Your task to perform on an android device: toggle sleep mode Image 0: 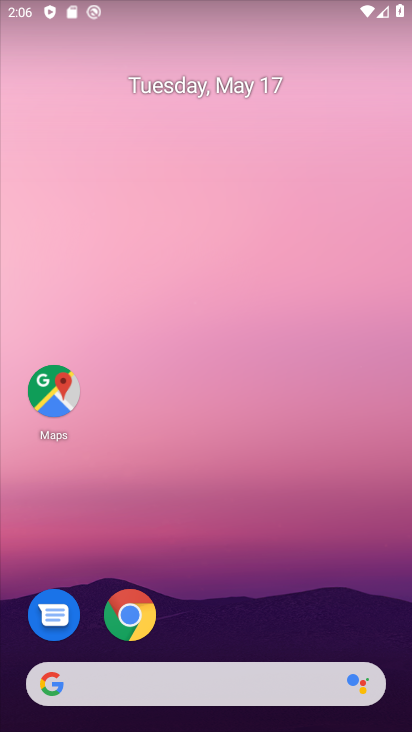
Step 0: drag from (215, 622) to (315, 0)
Your task to perform on an android device: toggle sleep mode Image 1: 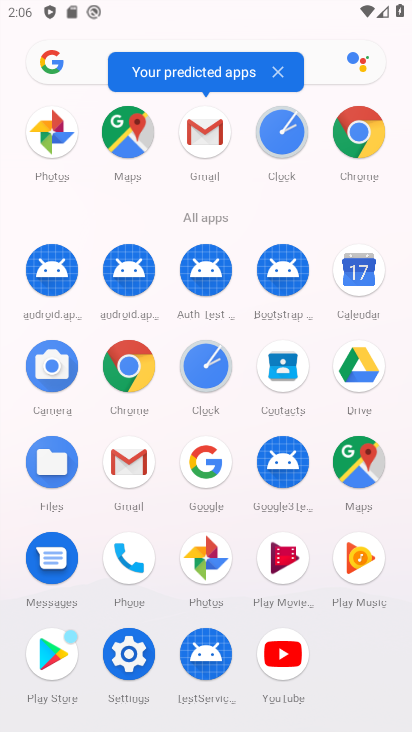
Step 1: click (124, 649)
Your task to perform on an android device: toggle sleep mode Image 2: 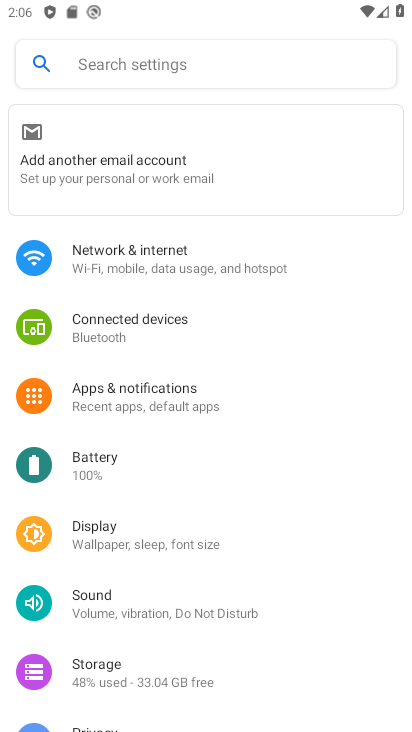
Step 2: click (129, 527)
Your task to perform on an android device: toggle sleep mode Image 3: 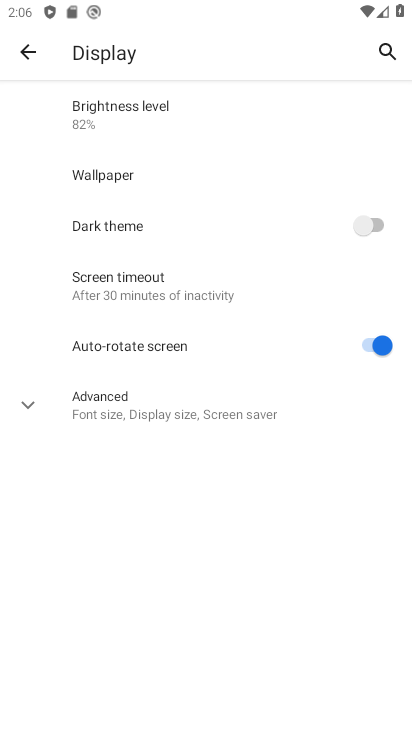
Step 3: click (35, 404)
Your task to perform on an android device: toggle sleep mode Image 4: 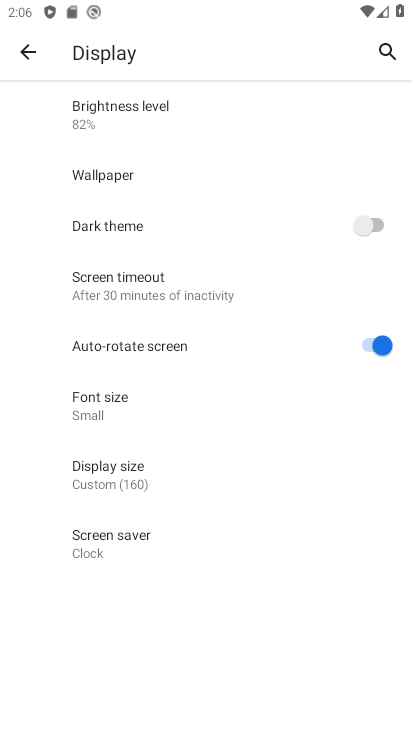
Step 4: task complete